Your task to perform on an android device: Open the map Image 0: 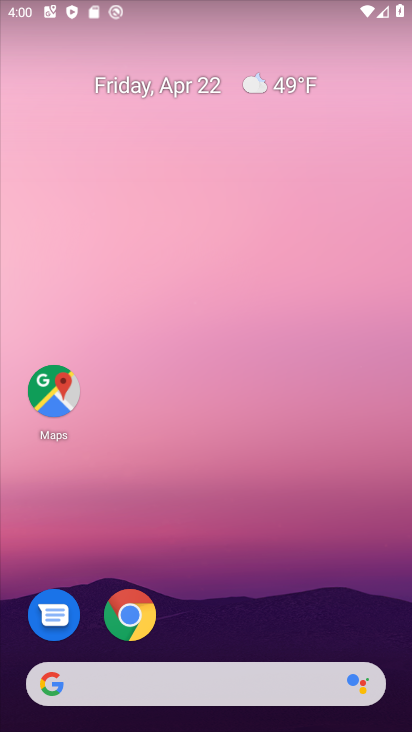
Step 0: drag from (213, 692) to (213, 267)
Your task to perform on an android device: Open the map Image 1: 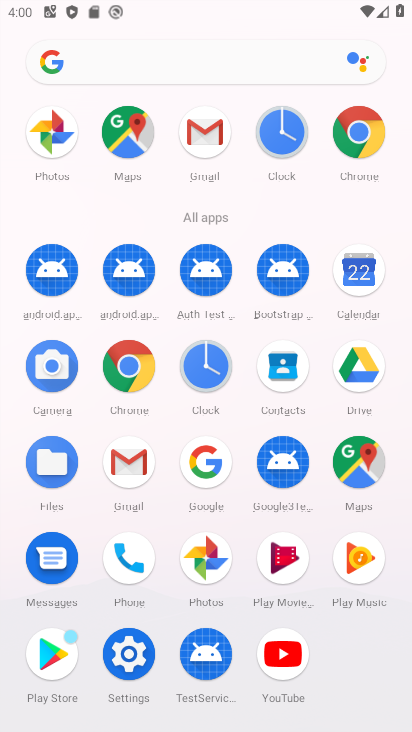
Step 1: click (357, 461)
Your task to perform on an android device: Open the map Image 2: 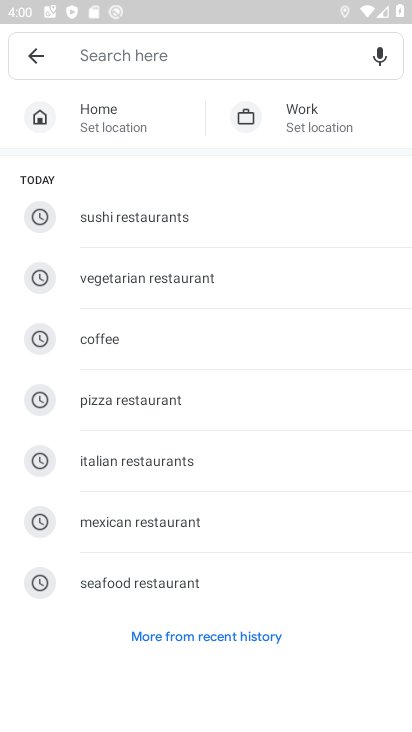
Step 2: task complete